Your task to perform on an android device: open sync settings in chrome Image 0: 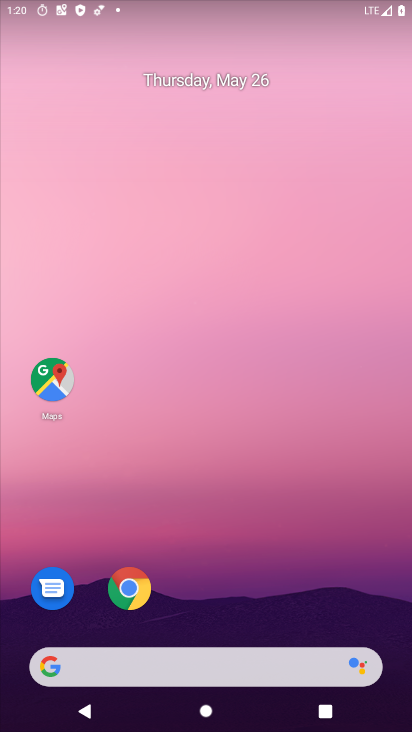
Step 0: drag from (392, 696) to (350, 319)
Your task to perform on an android device: open sync settings in chrome Image 1: 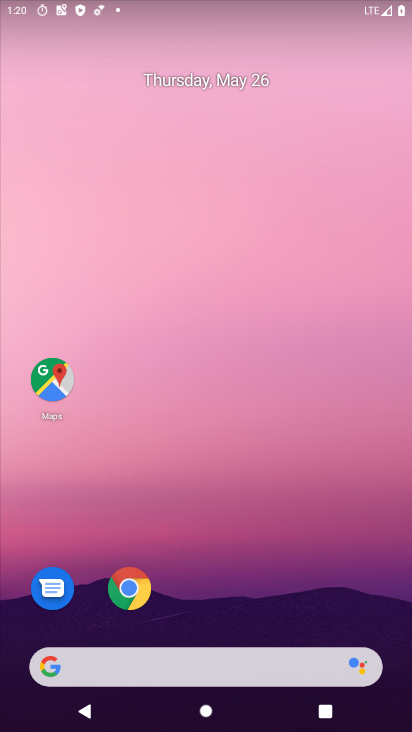
Step 1: drag from (390, 715) to (384, 234)
Your task to perform on an android device: open sync settings in chrome Image 2: 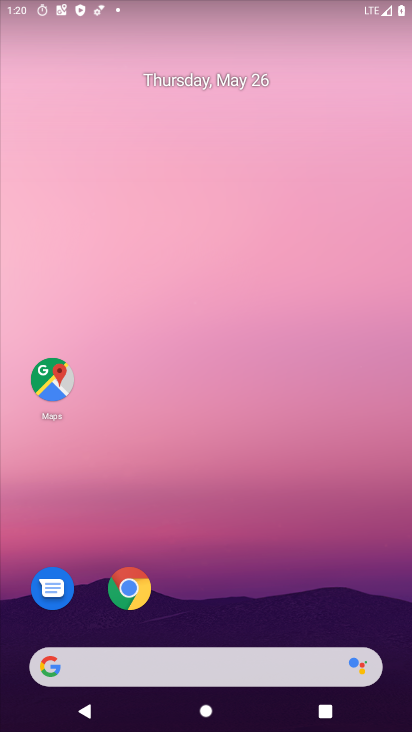
Step 2: click (124, 585)
Your task to perform on an android device: open sync settings in chrome Image 3: 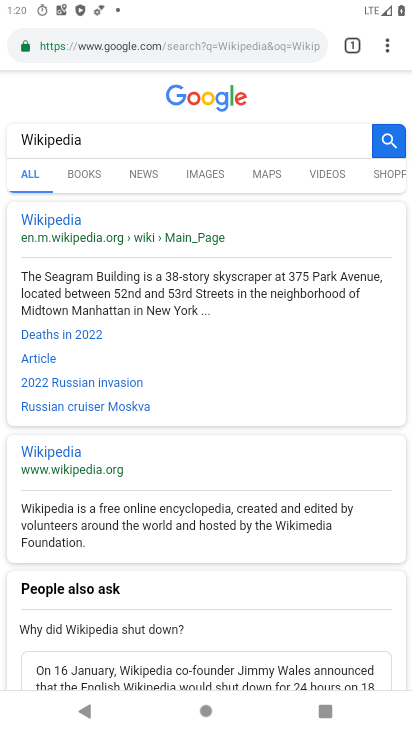
Step 3: click (386, 42)
Your task to perform on an android device: open sync settings in chrome Image 4: 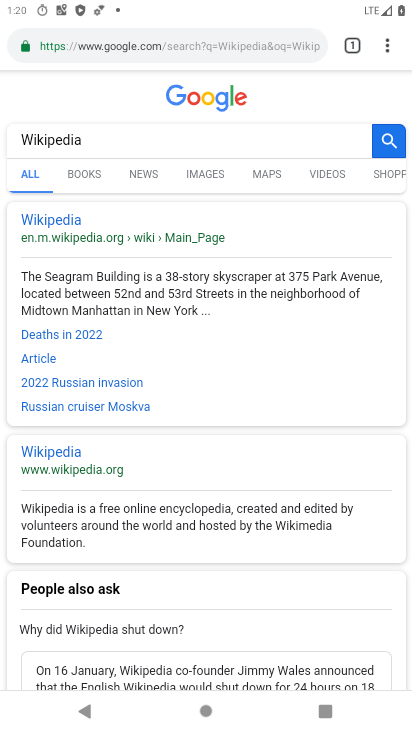
Step 4: click (386, 42)
Your task to perform on an android device: open sync settings in chrome Image 5: 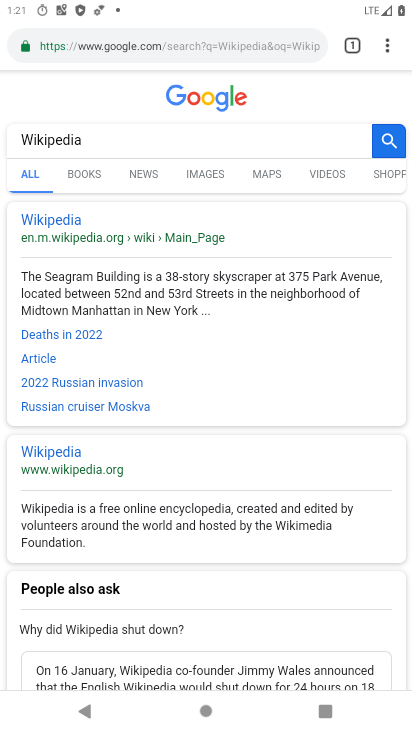
Step 5: click (386, 42)
Your task to perform on an android device: open sync settings in chrome Image 6: 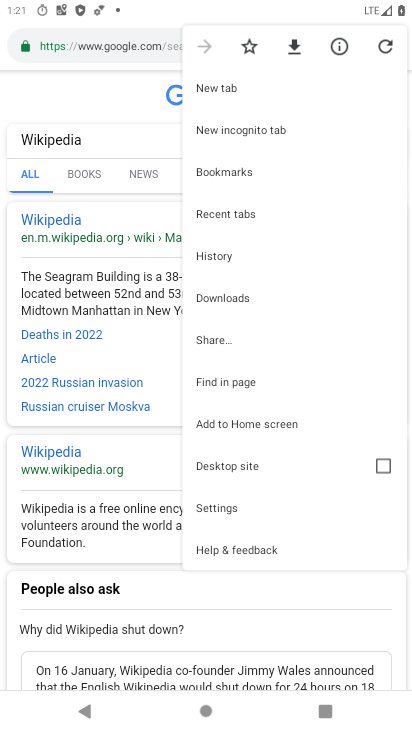
Step 6: click (209, 509)
Your task to perform on an android device: open sync settings in chrome Image 7: 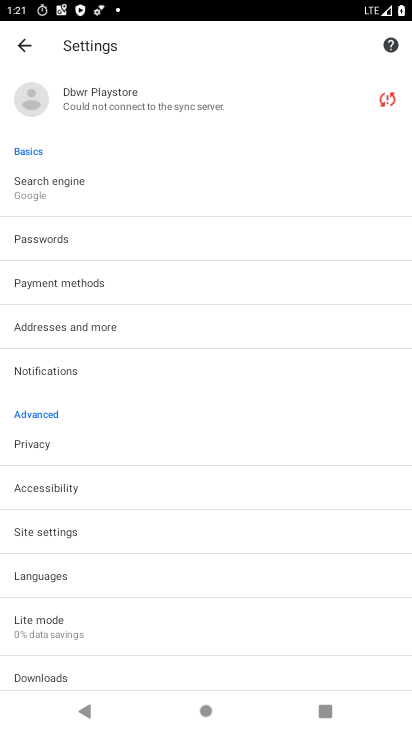
Step 7: click (43, 531)
Your task to perform on an android device: open sync settings in chrome Image 8: 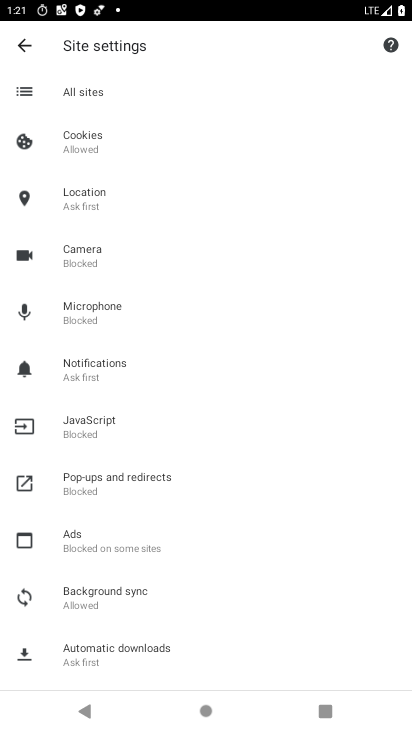
Step 8: click (88, 586)
Your task to perform on an android device: open sync settings in chrome Image 9: 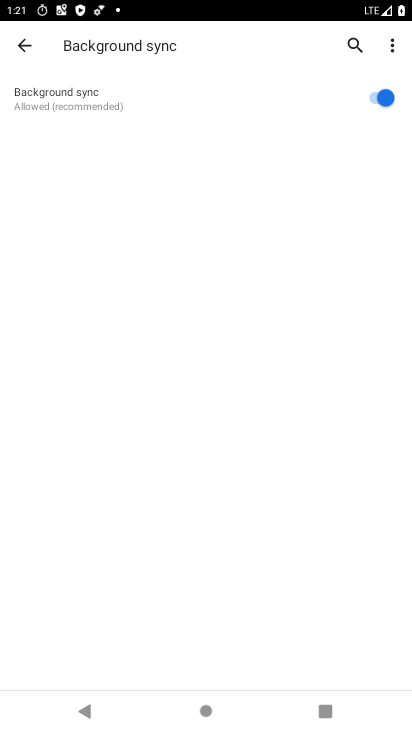
Step 9: task complete